Your task to perform on an android device: open device folders in google photos Image 0: 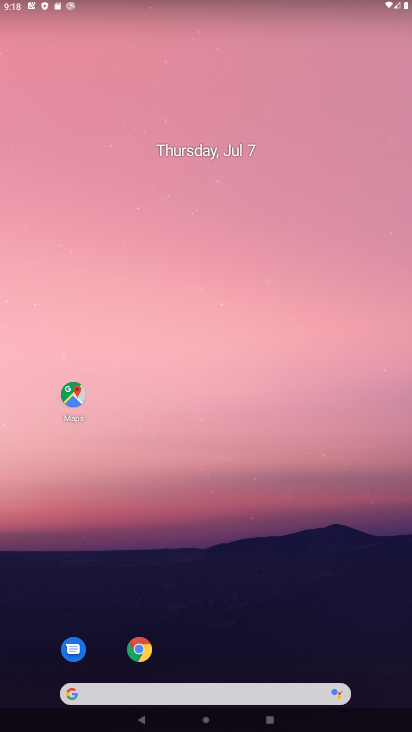
Step 0: drag from (225, 620) to (167, 106)
Your task to perform on an android device: open device folders in google photos Image 1: 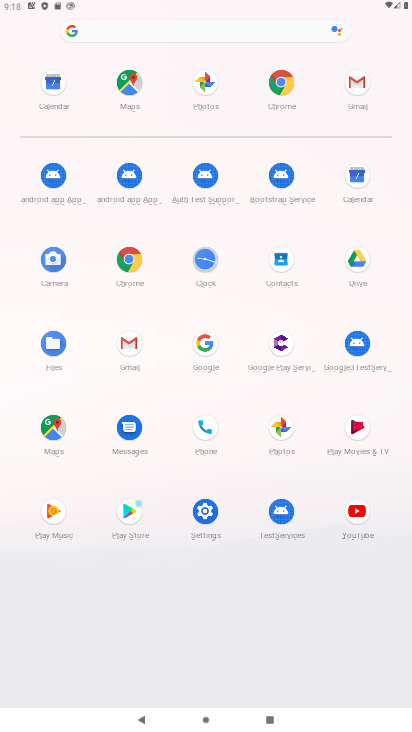
Step 1: click (206, 81)
Your task to perform on an android device: open device folders in google photos Image 2: 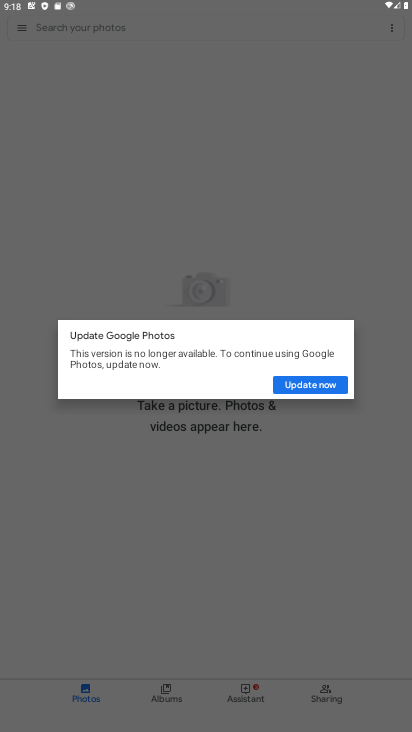
Step 2: task complete